Your task to perform on an android device: Open Google Maps Image 0: 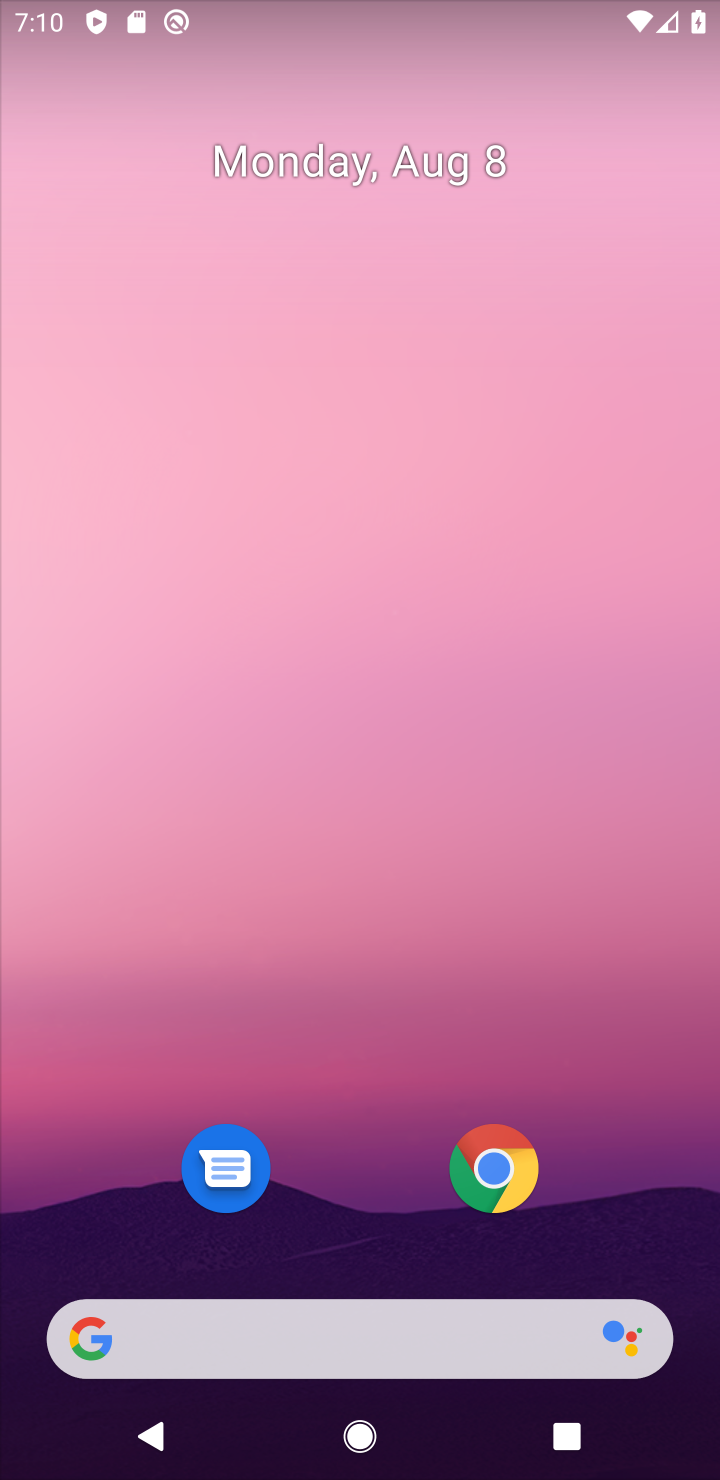
Step 0: drag from (642, 1186) to (365, 70)
Your task to perform on an android device: Open Google Maps Image 1: 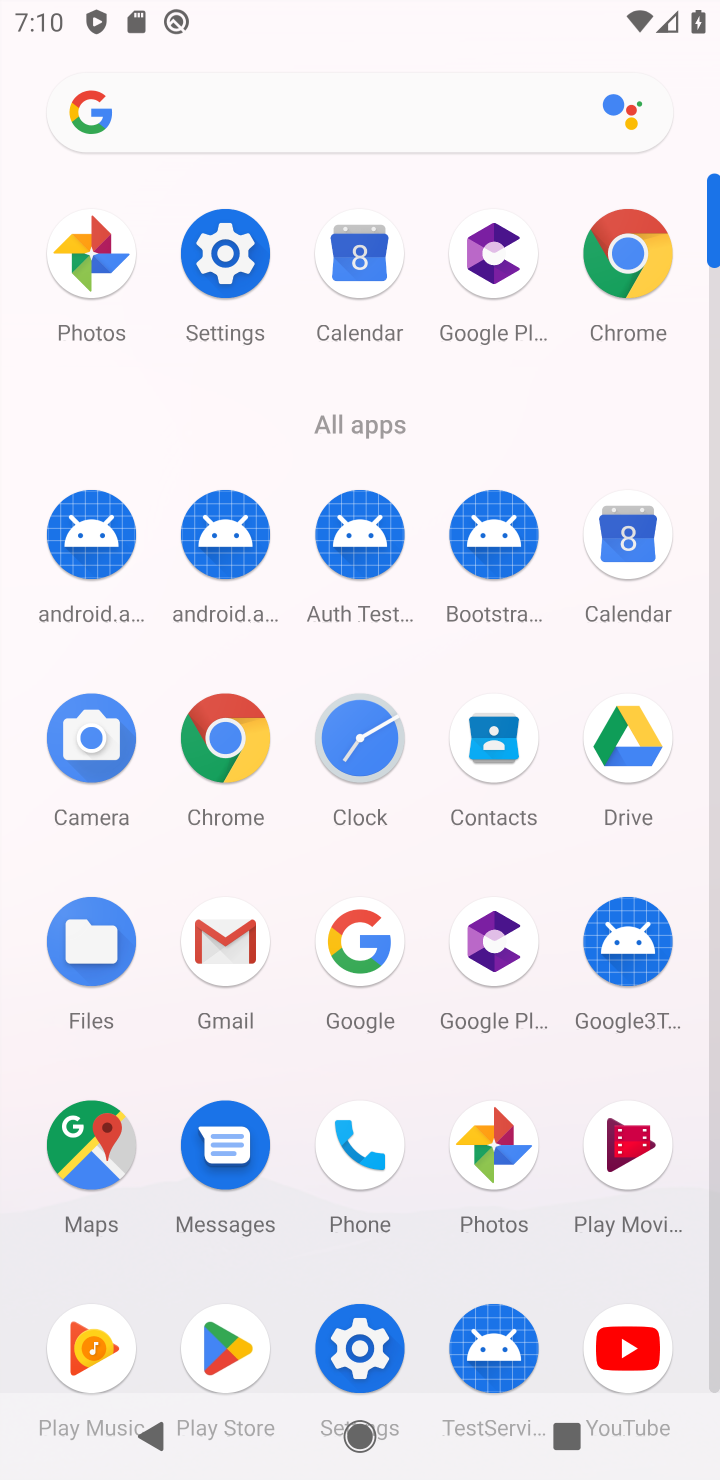
Step 1: click (98, 1170)
Your task to perform on an android device: Open Google Maps Image 2: 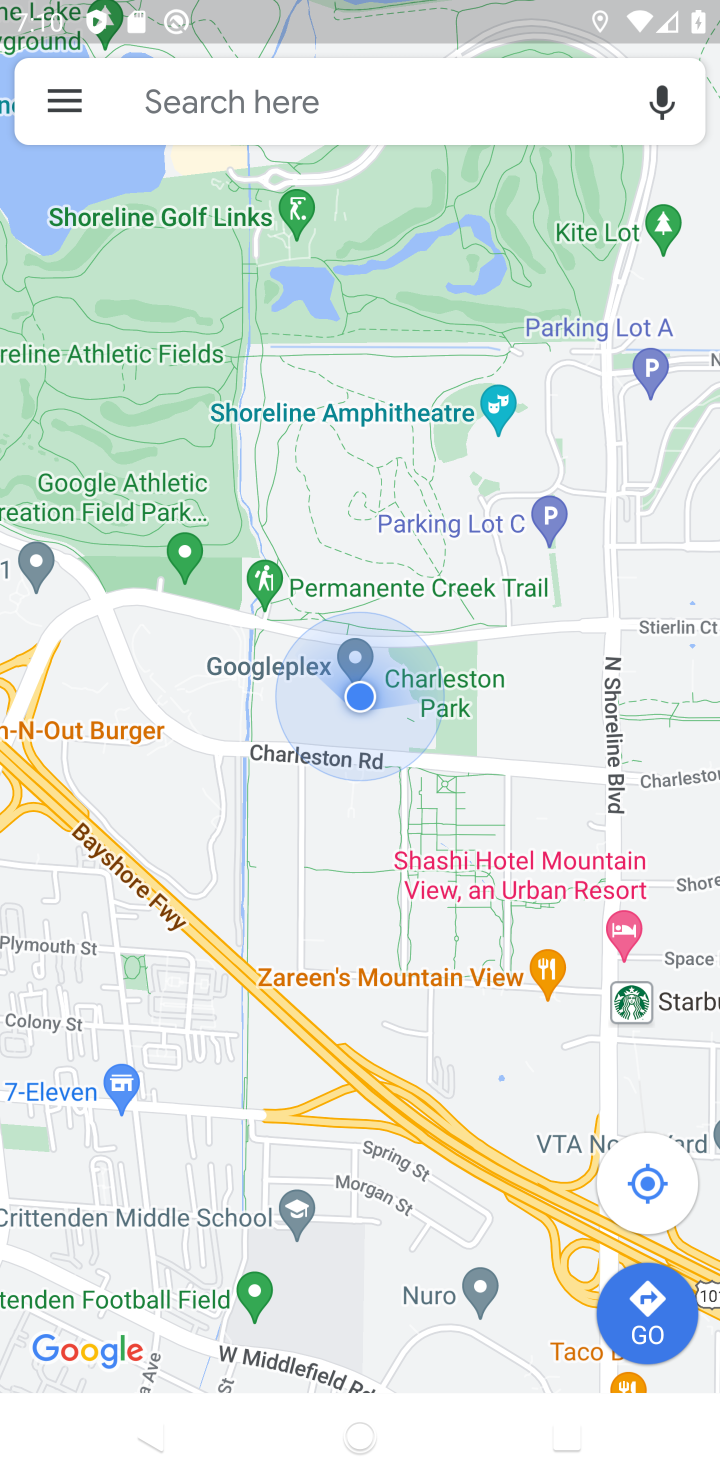
Step 2: task complete